Your task to perform on an android device: Open ESPN.com Image 0: 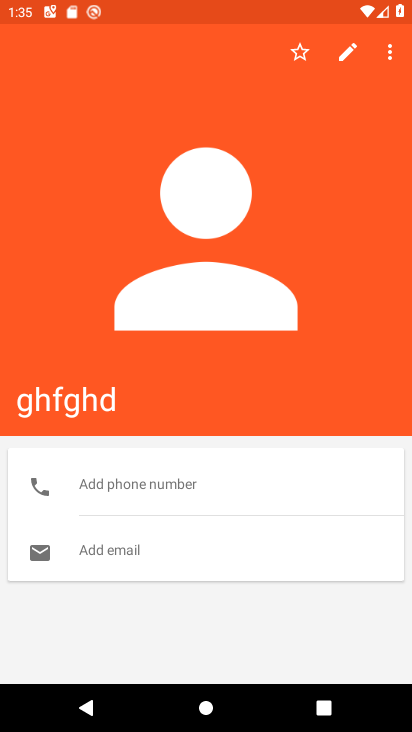
Step 0: press home button
Your task to perform on an android device: Open ESPN.com Image 1: 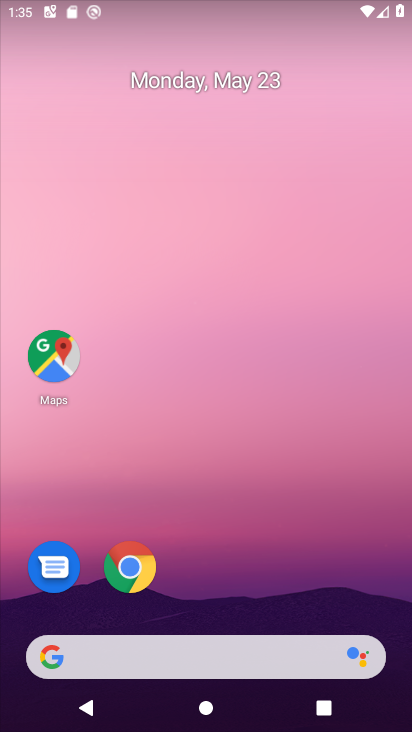
Step 1: drag from (217, 617) to (282, 213)
Your task to perform on an android device: Open ESPN.com Image 2: 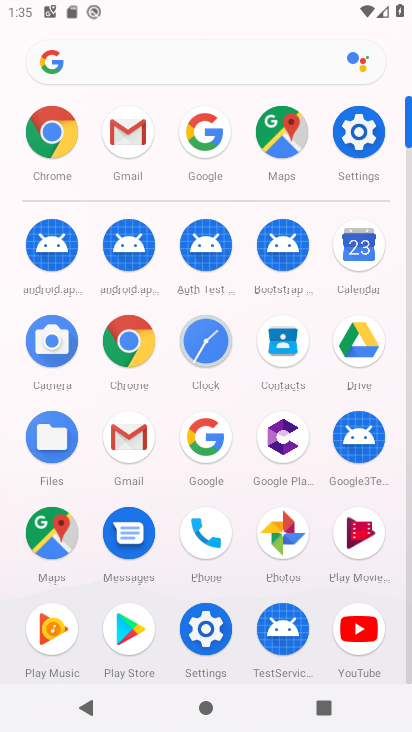
Step 2: click (127, 354)
Your task to perform on an android device: Open ESPN.com Image 3: 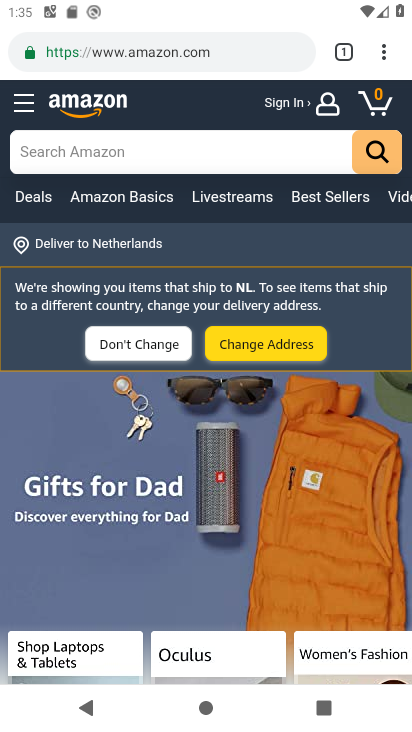
Step 3: click (342, 62)
Your task to perform on an android device: Open ESPN.com Image 4: 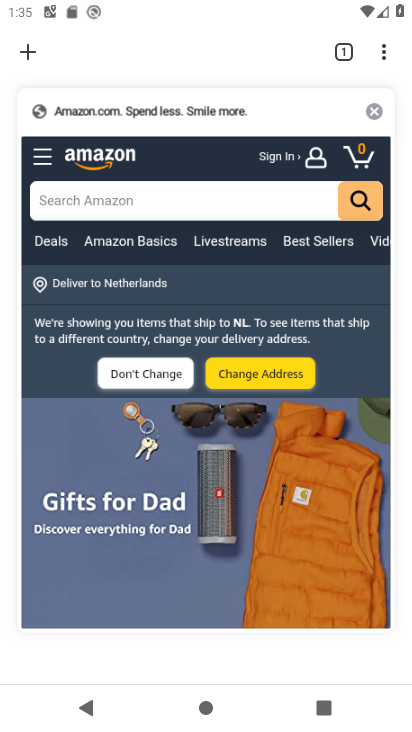
Step 4: click (33, 44)
Your task to perform on an android device: Open ESPN.com Image 5: 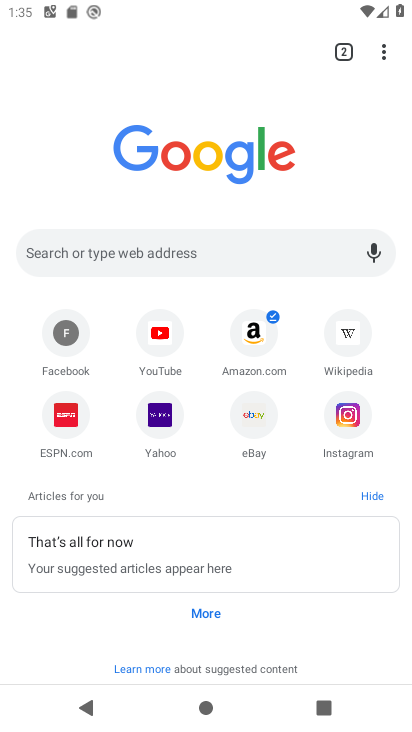
Step 5: click (56, 434)
Your task to perform on an android device: Open ESPN.com Image 6: 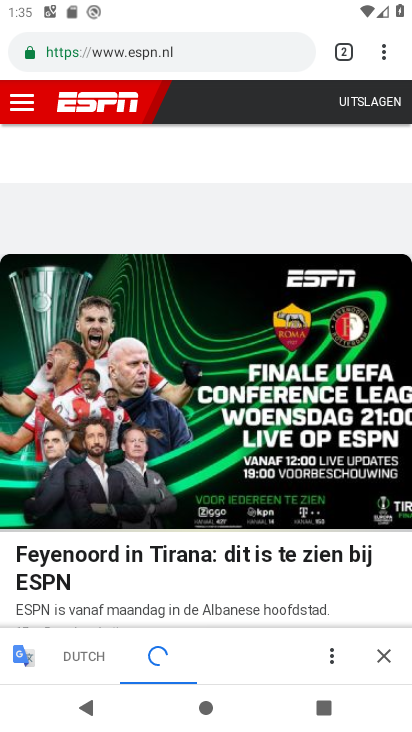
Step 6: task complete